Your task to perform on an android device: Go to Yahoo.com Image 0: 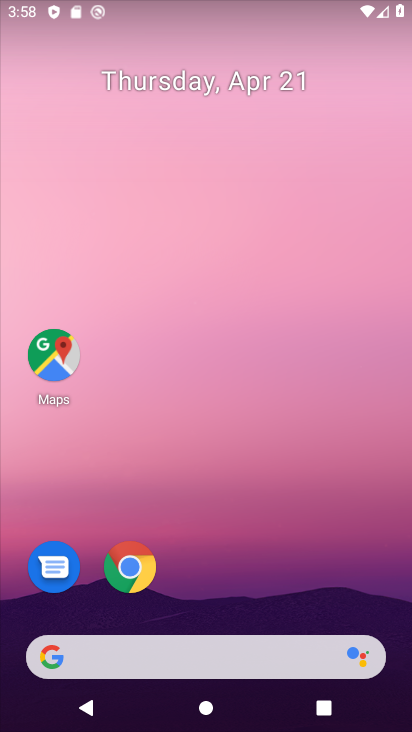
Step 0: drag from (287, 603) to (123, 67)
Your task to perform on an android device: Go to Yahoo.com Image 1: 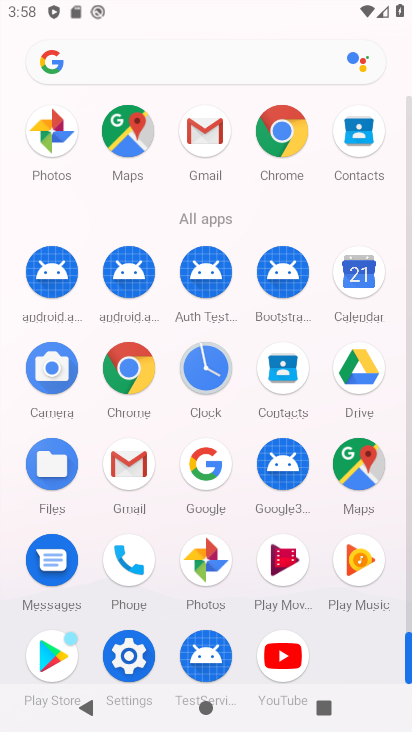
Step 1: click (278, 120)
Your task to perform on an android device: Go to Yahoo.com Image 2: 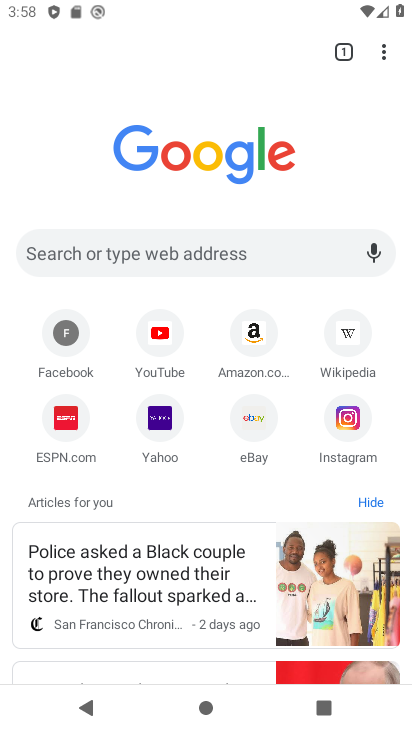
Step 2: click (181, 245)
Your task to perform on an android device: Go to Yahoo.com Image 3: 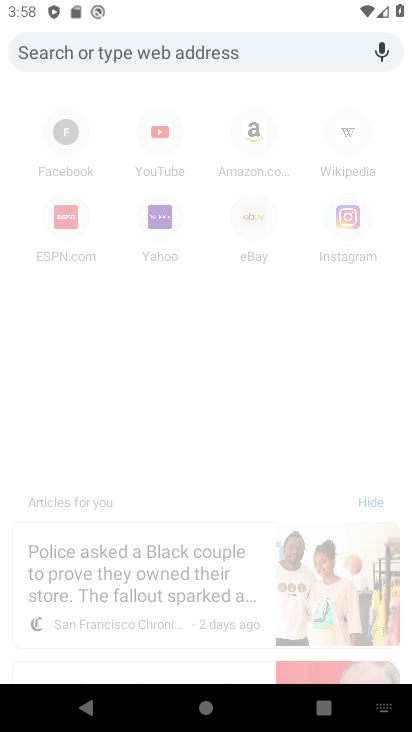
Step 3: type "Yahoo.com"
Your task to perform on an android device: Go to Yahoo.com Image 4: 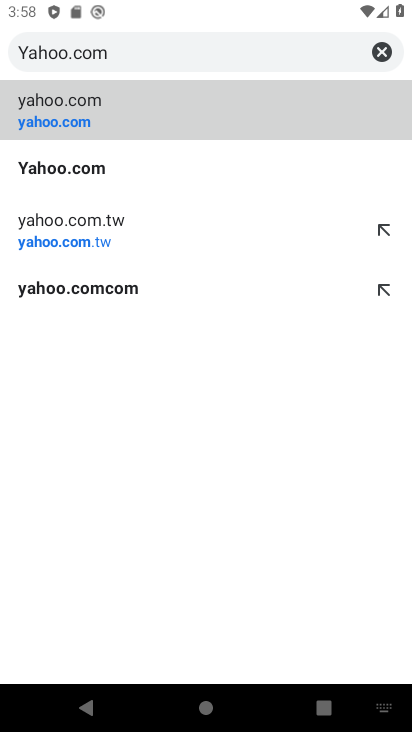
Step 4: click (77, 127)
Your task to perform on an android device: Go to Yahoo.com Image 5: 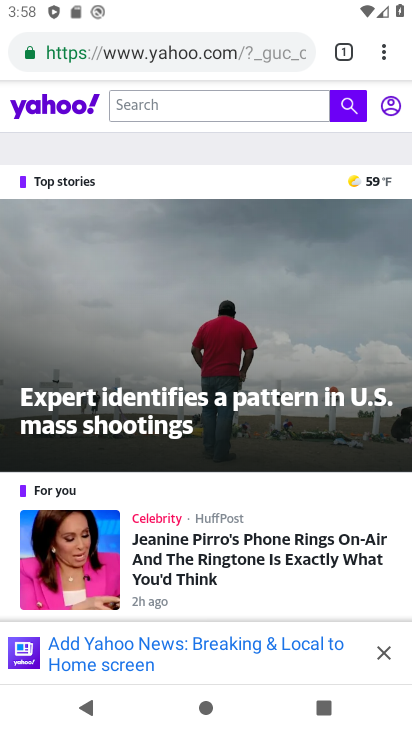
Step 5: task complete